Your task to perform on an android device: Open Google Maps Image 0: 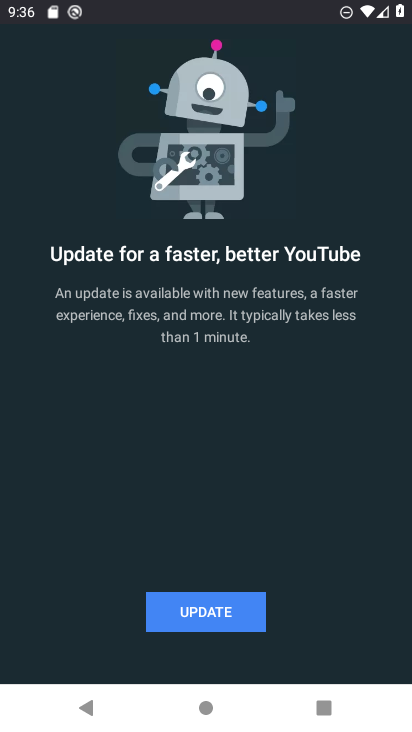
Step 0: press home button
Your task to perform on an android device: Open Google Maps Image 1: 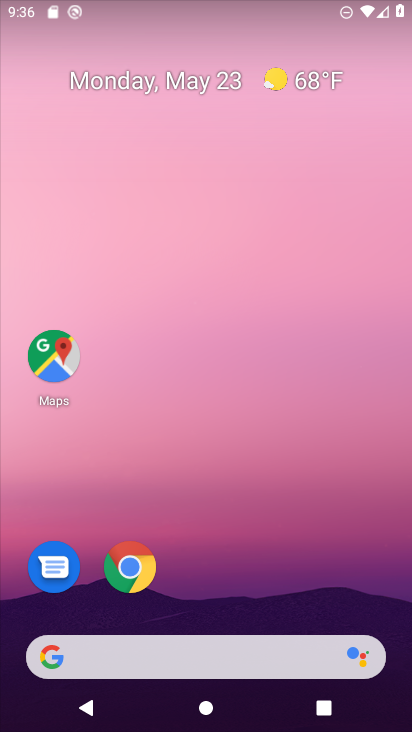
Step 1: drag from (181, 617) to (226, 300)
Your task to perform on an android device: Open Google Maps Image 2: 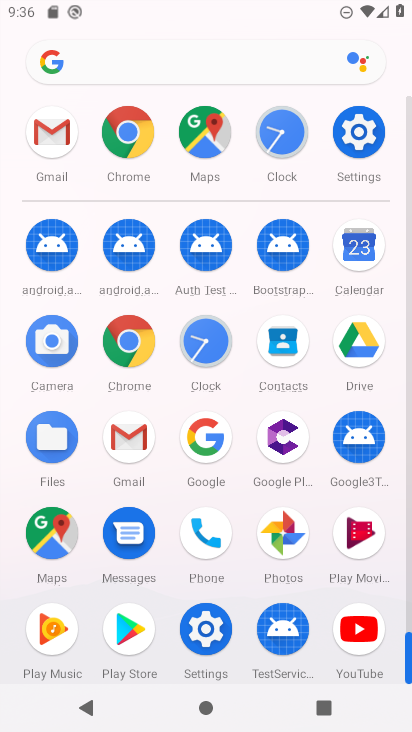
Step 2: click (45, 540)
Your task to perform on an android device: Open Google Maps Image 3: 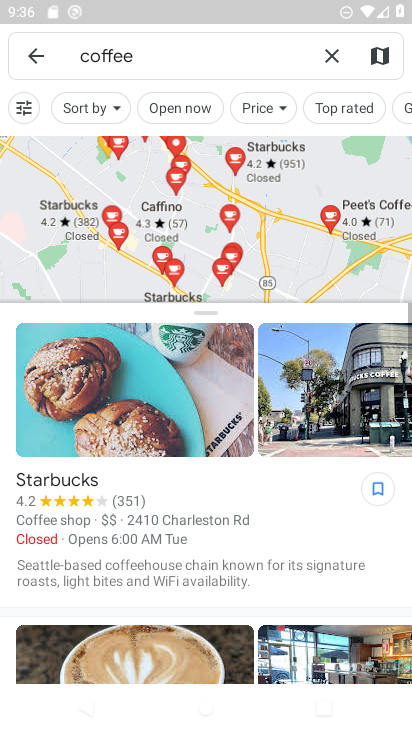
Step 3: task complete